Your task to perform on an android device: Go to notification settings Image 0: 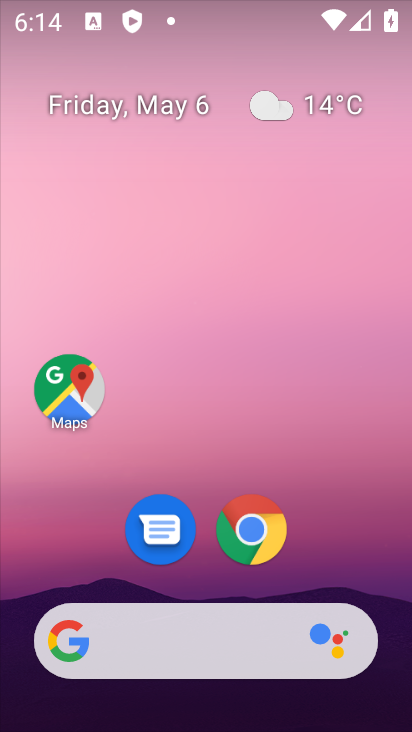
Step 0: drag from (334, 539) to (241, 124)
Your task to perform on an android device: Go to notification settings Image 1: 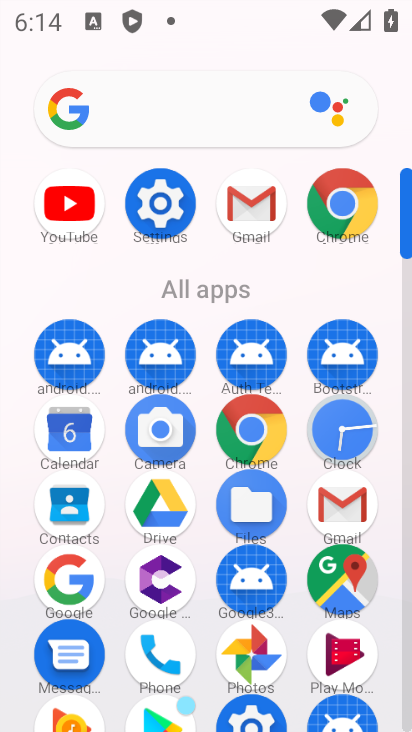
Step 1: click (159, 216)
Your task to perform on an android device: Go to notification settings Image 2: 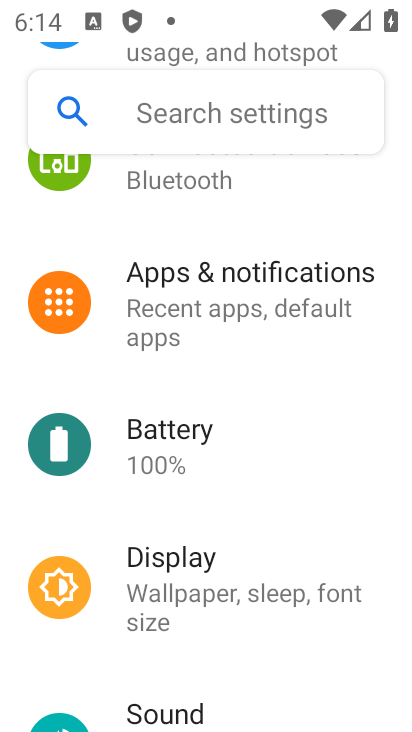
Step 2: click (237, 290)
Your task to perform on an android device: Go to notification settings Image 3: 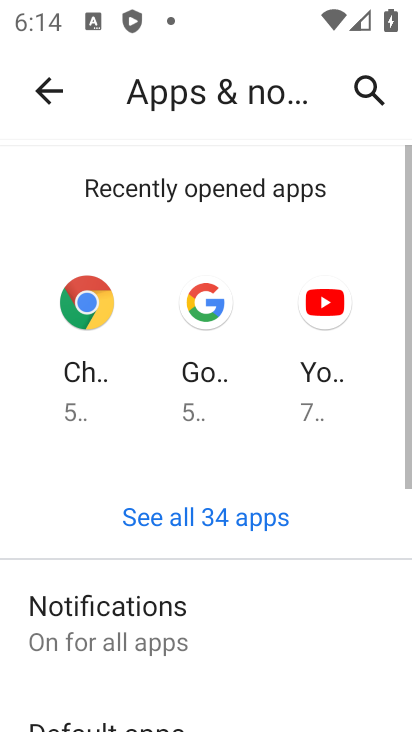
Step 3: task complete